Your task to perform on an android device: all mails in gmail Image 0: 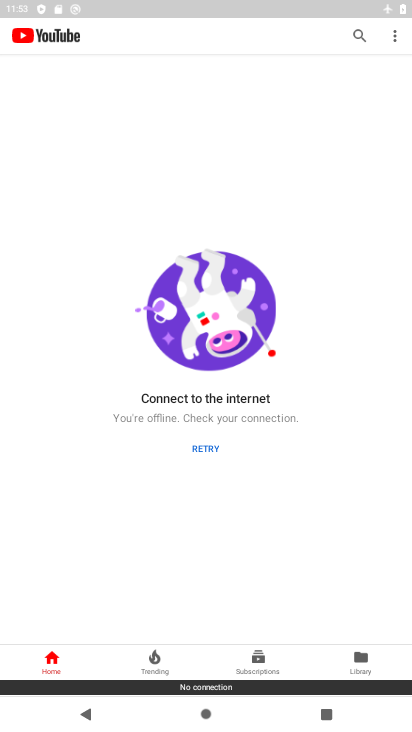
Step 0: press home button
Your task to perform on an android device: all mails in gmail Image 1: 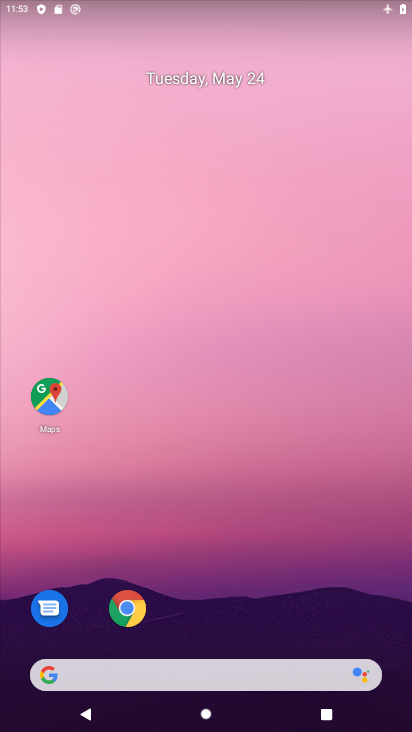
Step 1: drag from (348, 609) to (295, 108)
Your task to perform on an android device: all mails in gmail Image 2: 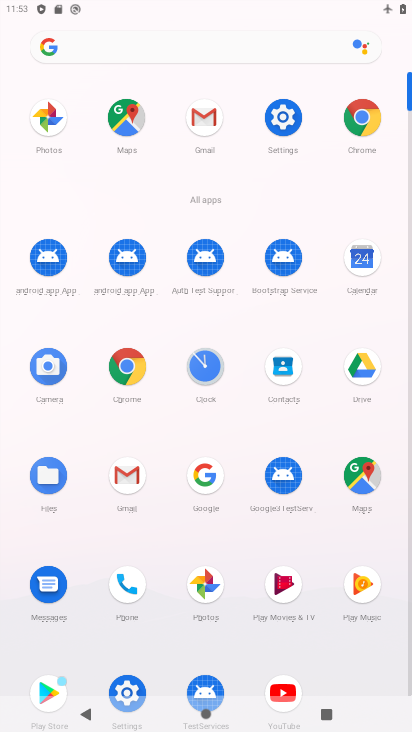
Step 2: click (127, 487)
Your task to perform on an android device: all mails in gmail Image 3: 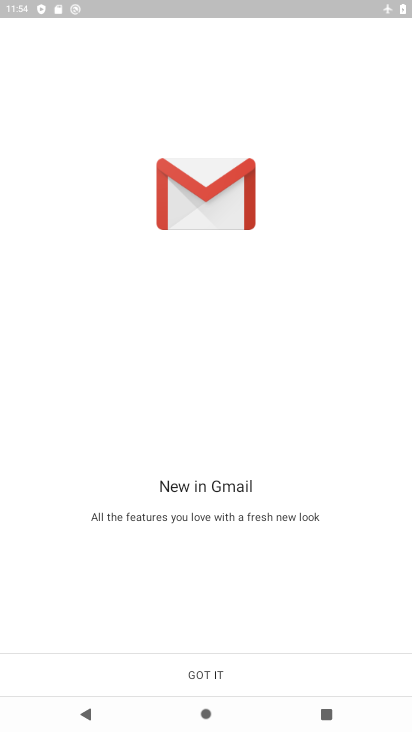
Step 3: click (204, 682)
Your task to perform on an android device: all mails in gmail Image 4: 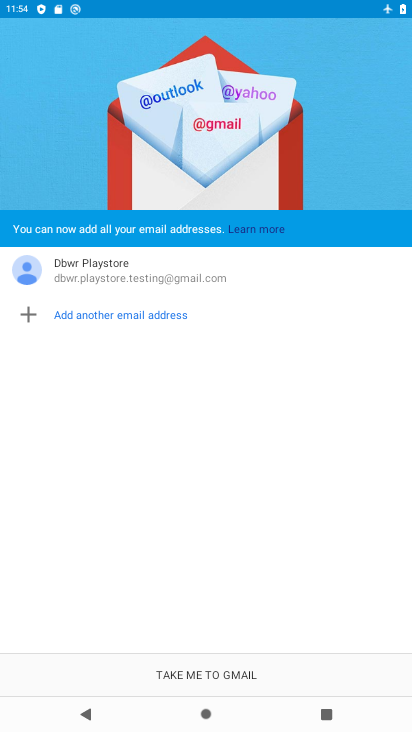
Step 4: click (202, 672)
Your task to perform on an android device: all mails in gmail Image 5: 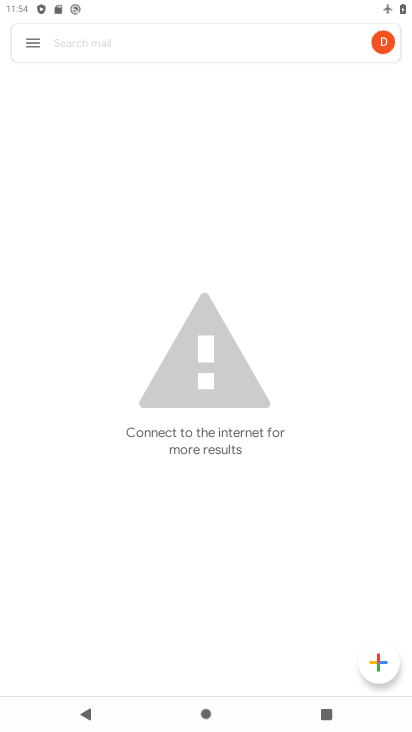
Step 5: click (37, 44)
Your task to perform on an android device: all mails in gmail Image 6: 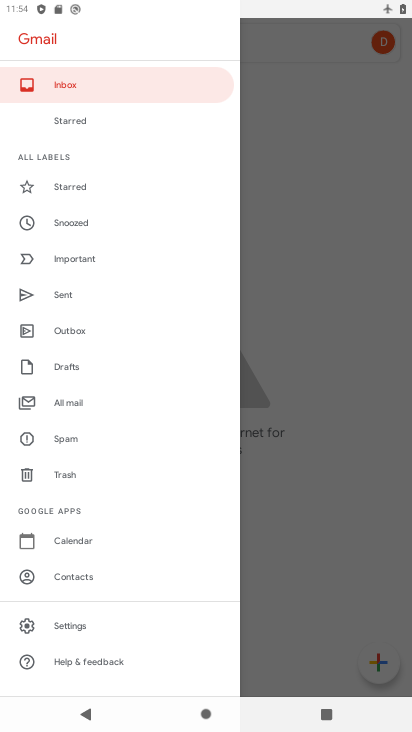
Step 6: click (89, 405)
Your task to perform on an android device: all mails in gmail Image 7: 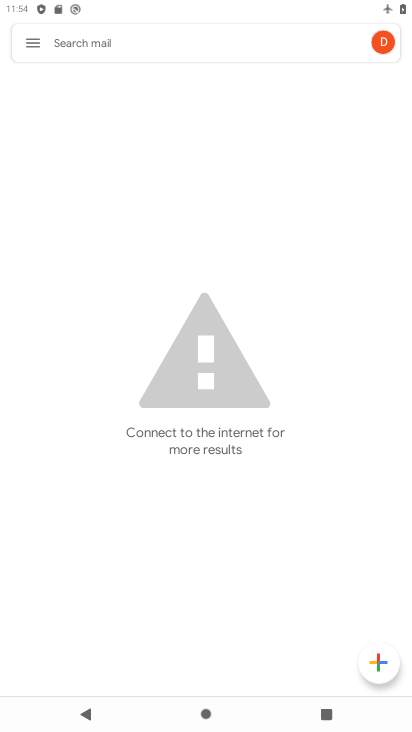
Step 7: task complete